Your task to perform on an android device: see tabs open on other devices in the chrome app Image 0: 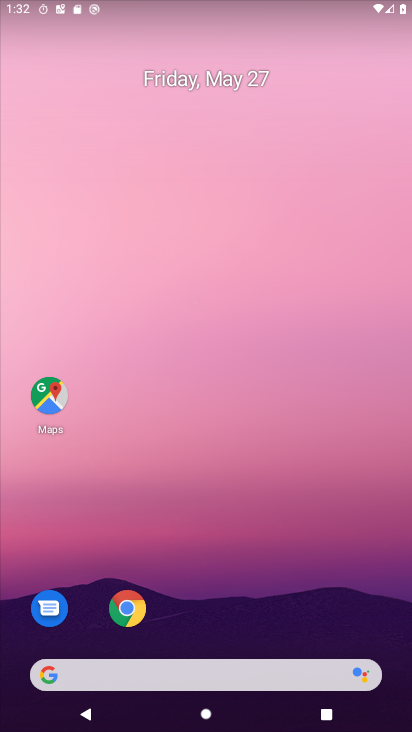
Step 0: click (139, 607)
Your task to perform on an android device: see tabs open on other devices in the chrome app Image 1: 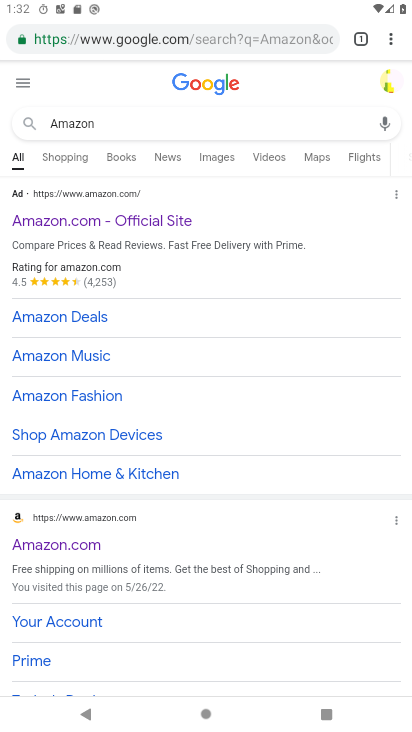
Step 1: click (389, 34)
Your task to perform on an android device: see tabs open on other devices in the chrome app Image 2: 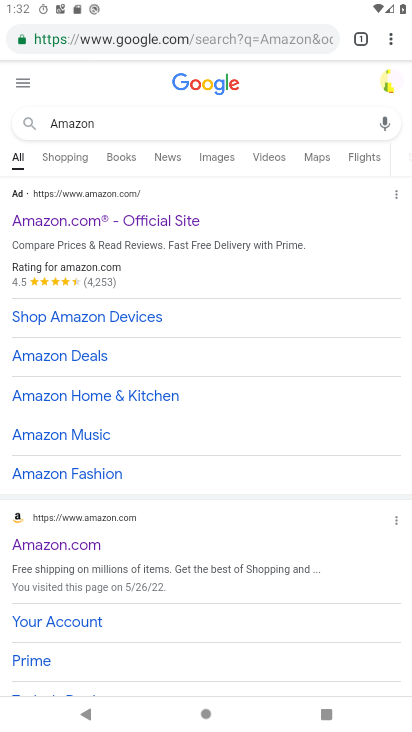
Step 2: click (393, 39)
Your task to perform on an android device: see tabs open on other devices in the chrome app Image 3: 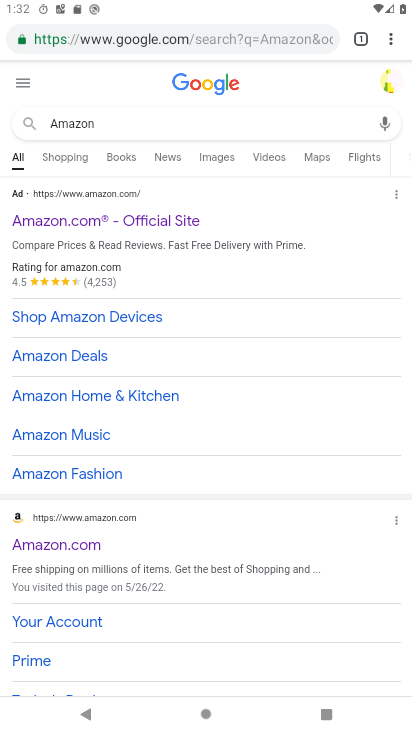
Step 3: click (390, 38)
Your task to perform on an android device: see tabs open on other devices in the chrome app Image 4: 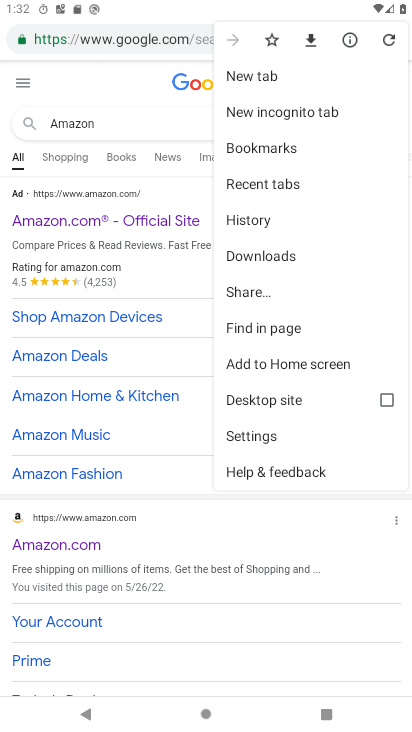
Step 4: click (240, 177)
Your task to perform on an android device: see tabs open on other devices in the chrome app Image 5: 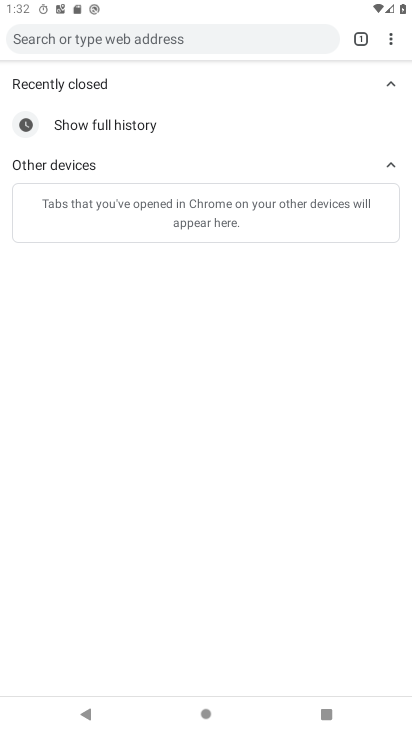
Step 5: task complete